Your task to perform on an android device: open sync settings in chrome Image 0: 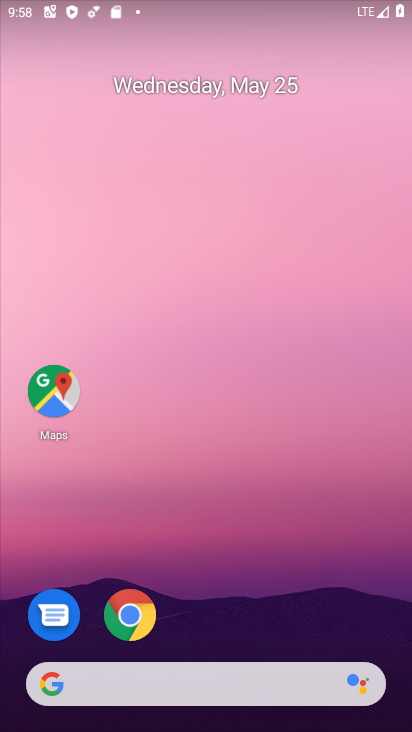
Step 0: click (135, 612)
Your task to perform on an android device: open sync settings in chrome Image 1: 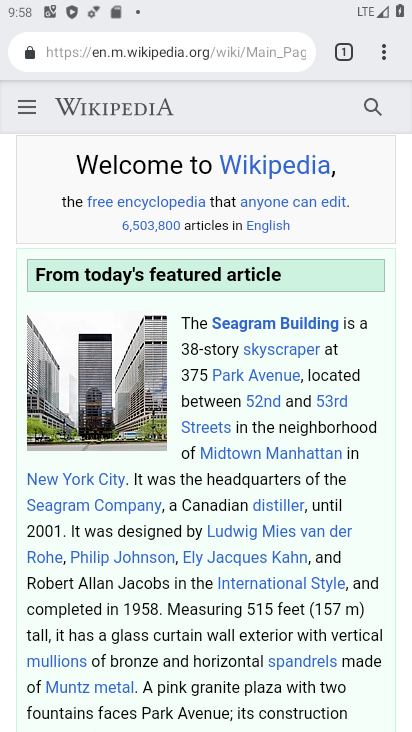
Step 1: click (383, 54)
Your task to perform on an android device: open sync settings in chrome Image 2: 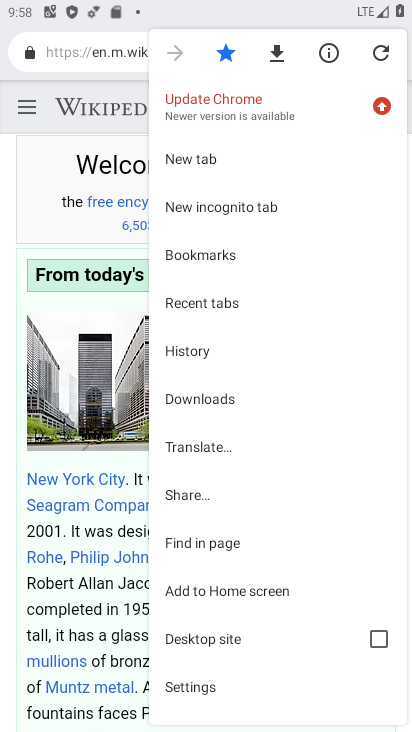
Step 2: click (220, 684)
Your task to perform on an android device: open sync settings in chrome Image 3: 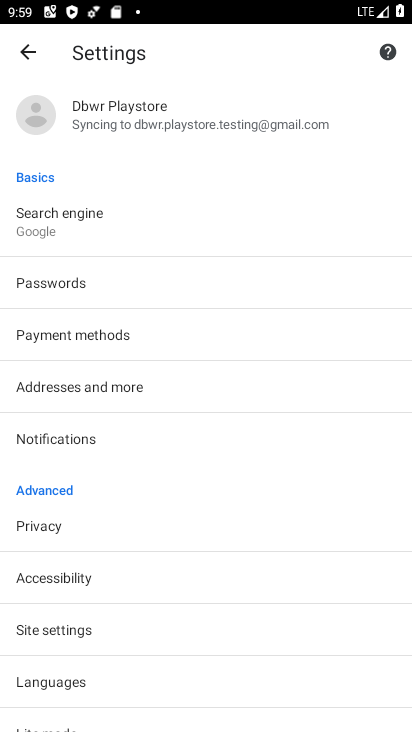
Step 3: click (221, 114)
Your task to perform on an android device: open sync settings in chrome Image 4: 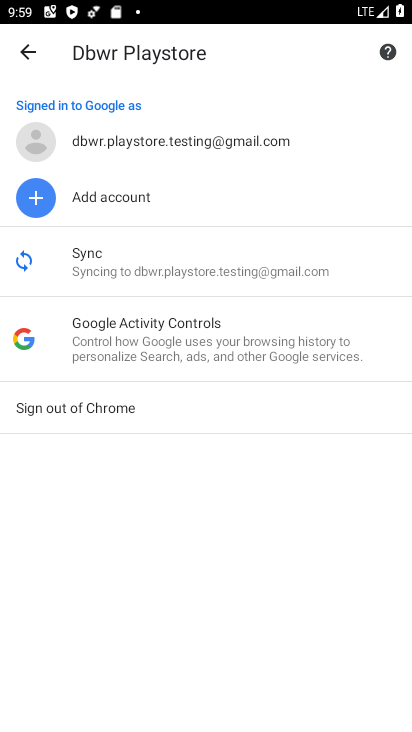
Step 4: click (206, 262)
Your task to perform on an android device: open sync settings in chrome Image 5: 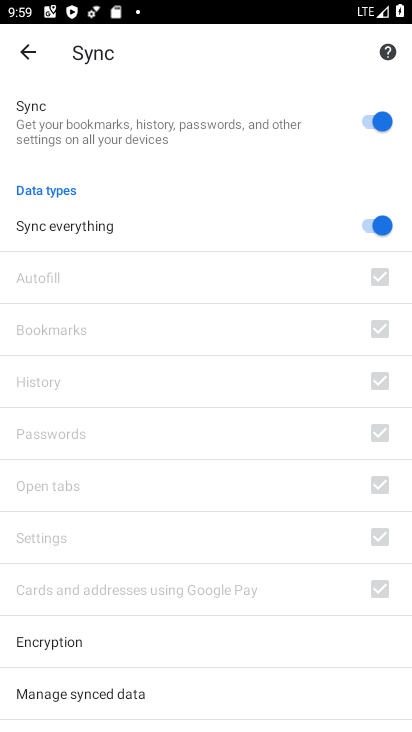
Step 5: task complete